Your task to perform on an android device: change notification settings in the gmail app Image 0: 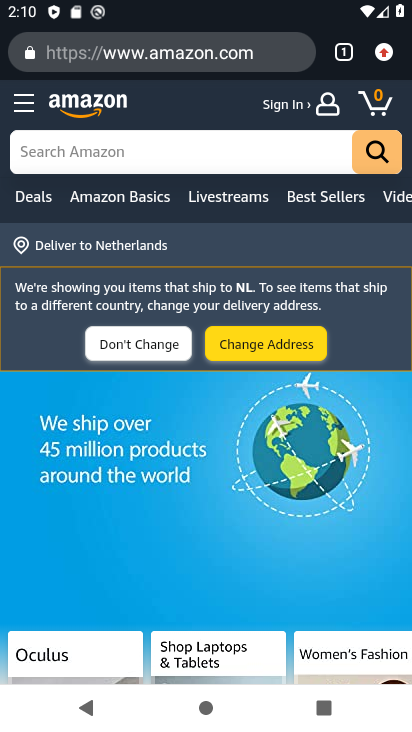
Step 0: press home button
Your task to perform on an android device: change notification settings in the gmail app Image 1: 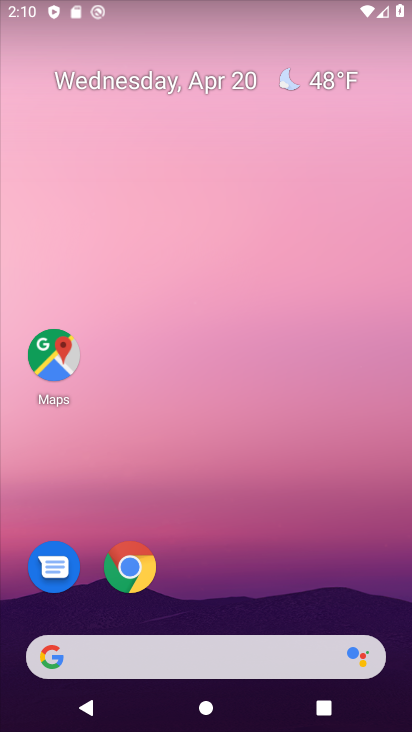
Step 1: drag from (321, 553) to (291, 127)
Your task to perform on an android device: change notification settings in the gmail app Image 2: 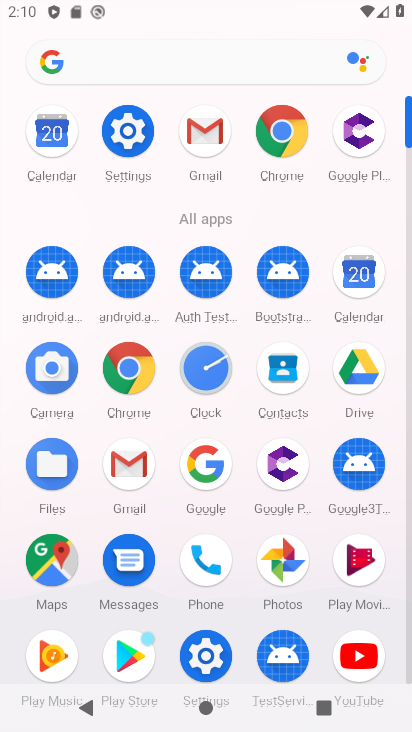
Step 2: click (206, 132)
Your task to perform on an android device: change notification settings in the gmail app Image 3: 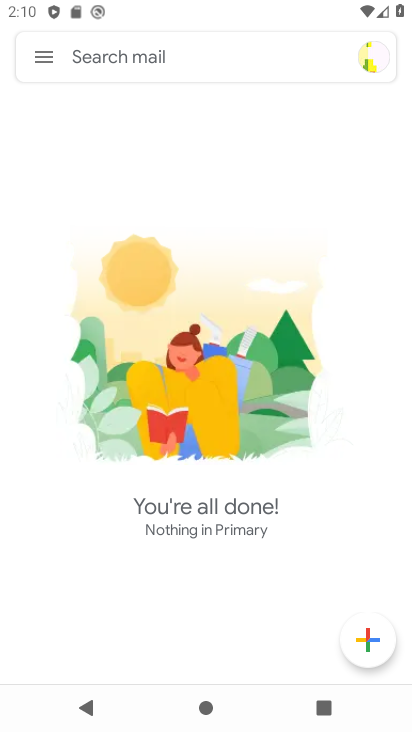
Step 3: click (43, 57)
Your task to perform on an android device: change notification settings in the gmail app Image 4: 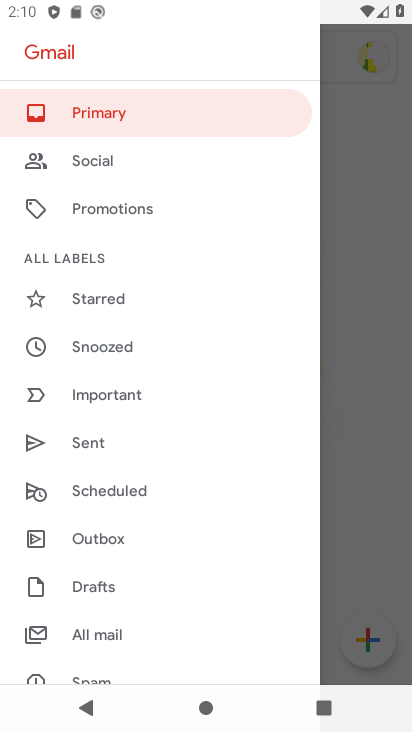
Step 4: drag from (170, 656) to (195, 219)
Your task to perform on an android device: change notification settings in the gmail app Image 5: 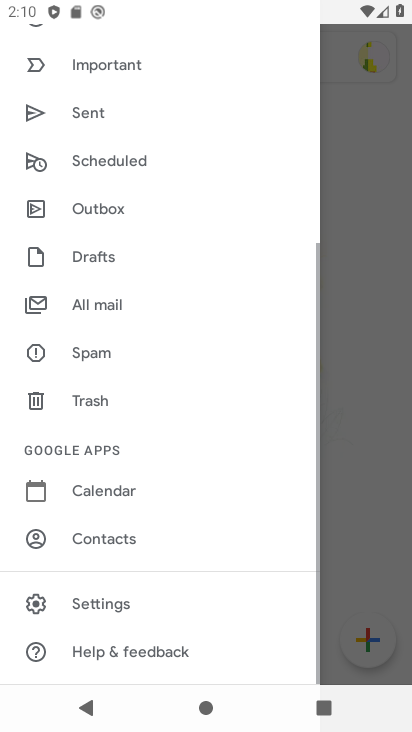
Step 5: click (128, 606)
Your task to perform on an android device: change notification settings in the gmail app Image 6: 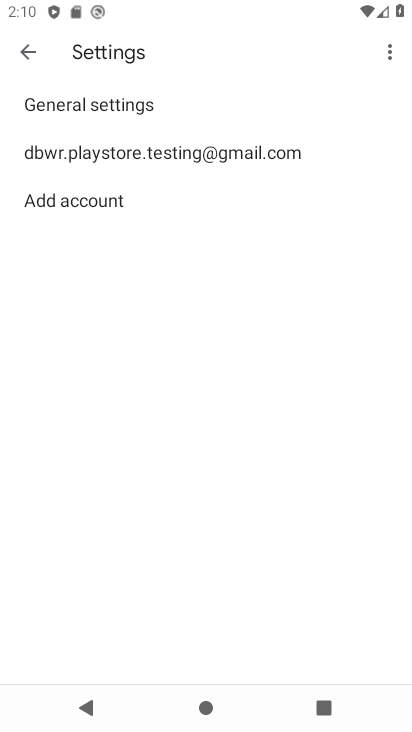
Step 6: click (131, 107)
Your task to perform on an android device: change notification settings in the gmail app Image 7: 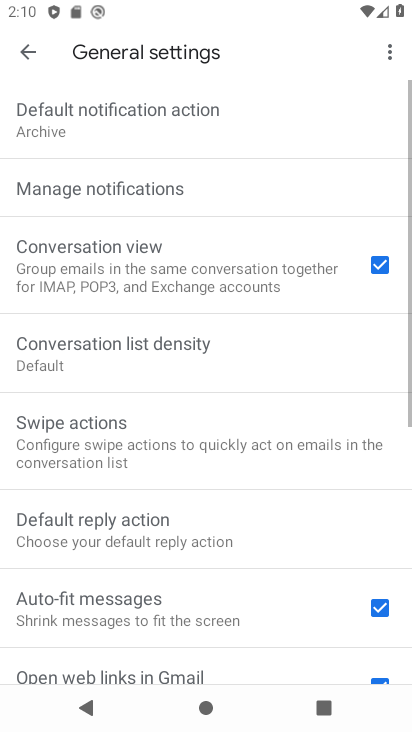
Step 7: click (162, 185)
Your task to perform on an android device: change notification settings in the gmail app Image 8: 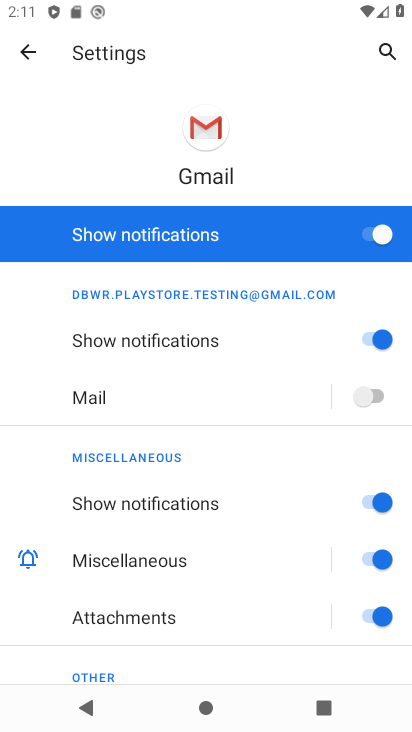
Step 8: click (365, 499)
Your task to perform on an android device: change notification settings in the gmail app Image 9: 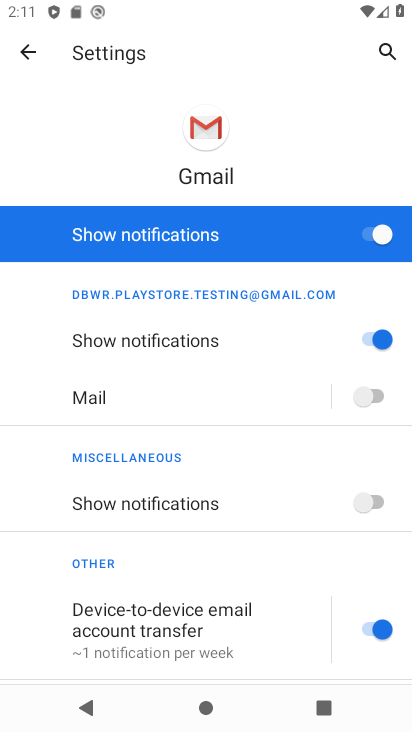
Step 9: task complete